Your task to perform on an android device: turn pop-ups on in chrome Image 0: 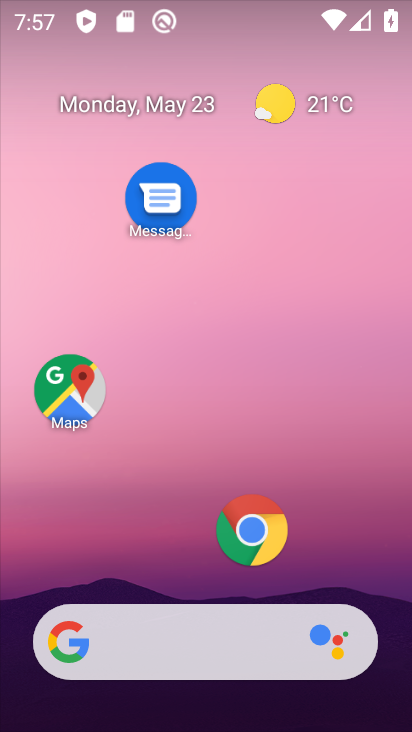
Step 0: click (244, 532)
Your task to perform on an android device: turn pop-ups on in chrome Image 1: 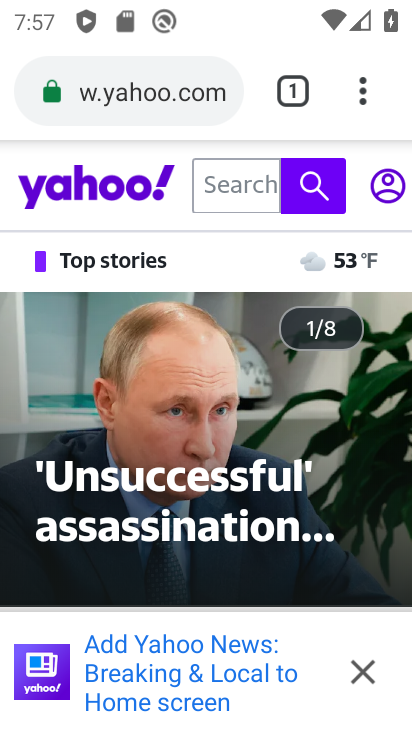
Step 1: click (373, 93)
Your task to perform on an android device: turn pop-ups on in chrome Image 2: 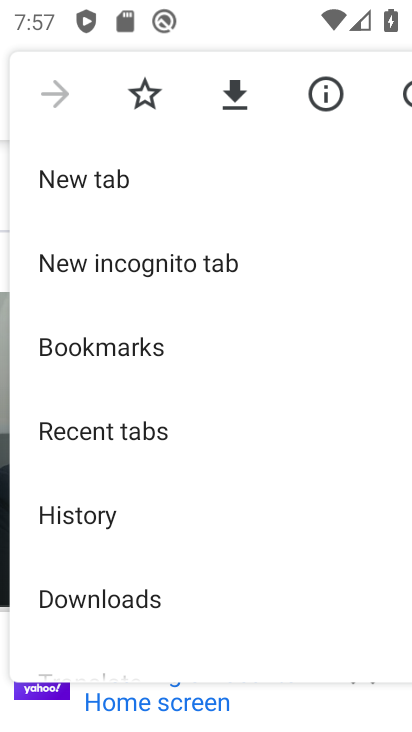
Step 2: drag from (87, 640) to (194, 105)
Your task to perform on an android device: turn pop-ups on in chrome Image 3: 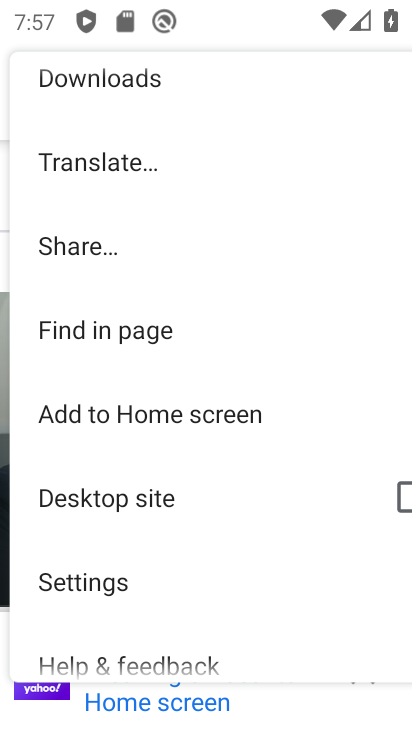
Step 3: click (59, 588)
Your task to perform on an android device: turn pop-ups on in chrome Image 4: 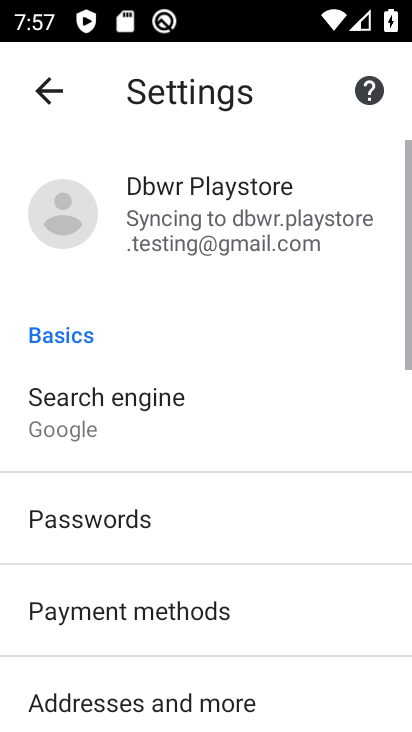
Step 4: drag from (59, 588) to (172, 151)
Your task to perform on an android device: turn pop-ups on in chrome Image 5: 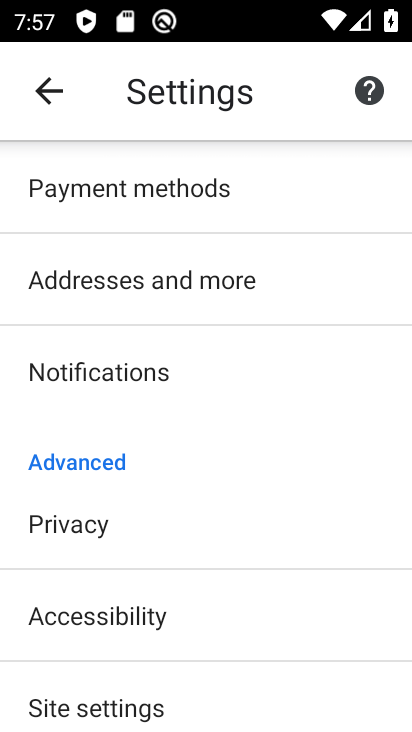
Step 5: click (82, 699)
Your task to perform on an android device: turn pop-ups on in chrome Image 6: 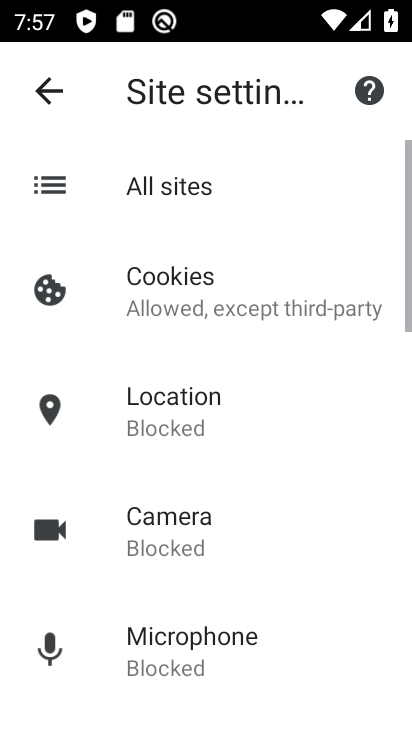
Step 6: drag from (82, 699) to (90, 242)
Your task to perform on an android device: turn pop-ups on in chrome Image 7: 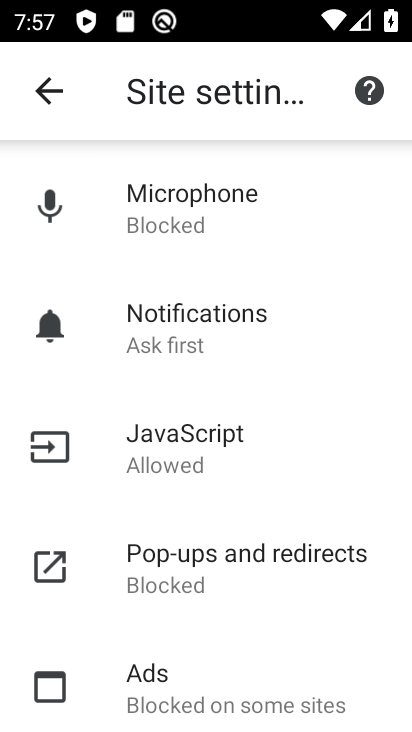
Step 7: click (192, 550)
Your task to perform on an android device: turn pop-ups on in chrome Image 8: 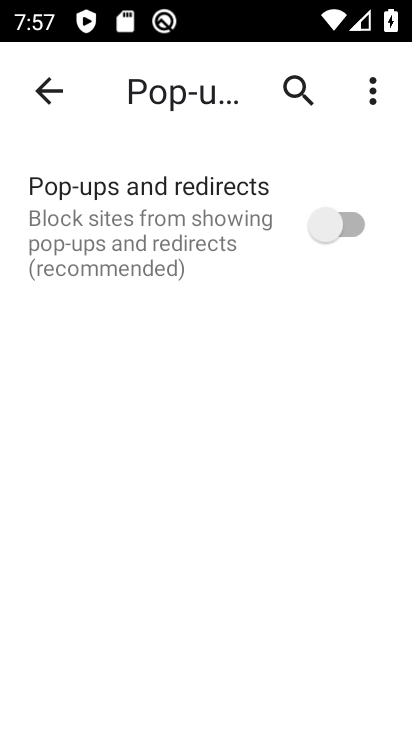
Step 8: click (357, 223)
Your task to perform on an android device: turn pop-ups on in chrome Image 9: 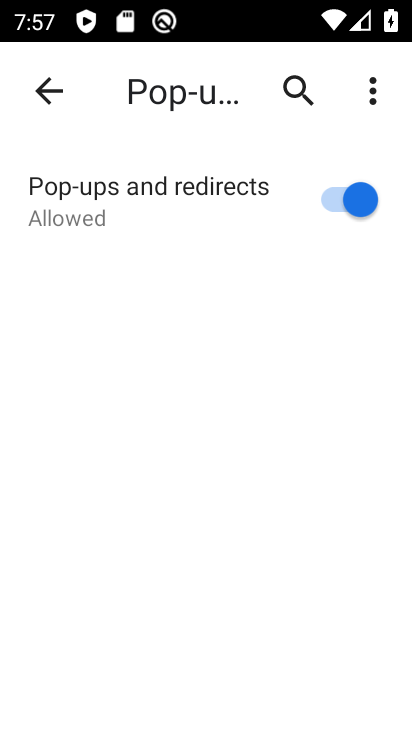
Step 9: task complete